Your task to perform on an android device: Open ESPN.com Image 0: 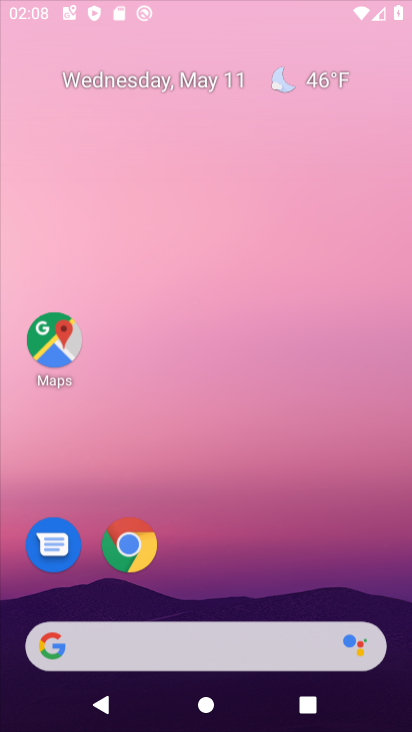
Step 0: click (312, 41)
Your task to perform on an android device: Open ESPN.com Image 1: 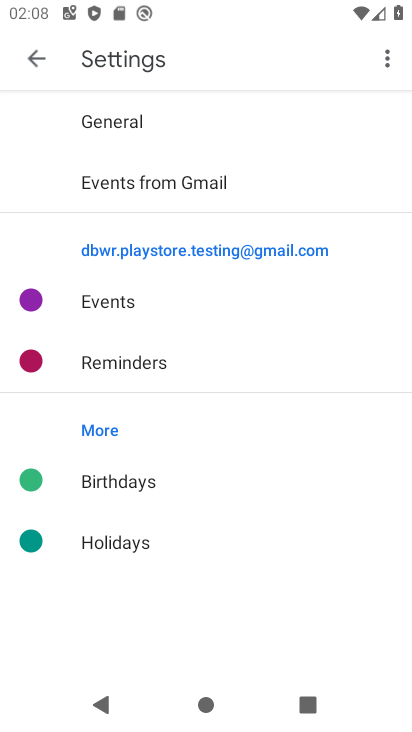
Step 1: press home button
Your task to perform on an android device: Open ESPN.com Image 2: 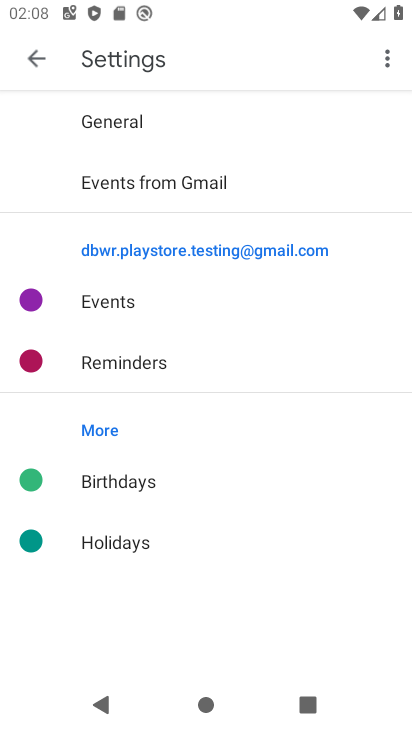
Step 2: drag from (279, 583) to (359, 66)
Your task to perform on an android device: Open ESPN.com Image 3: 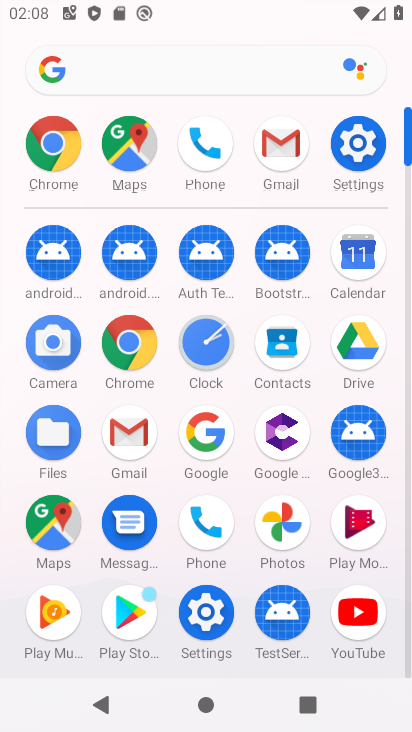
Step 3: click (361, 185)
Your task to perform on an android device: Open ESPN.com Image 4: 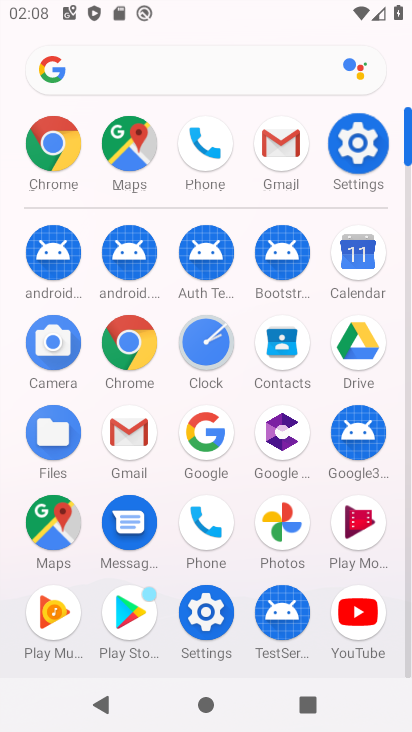
Step 4: click (363, 153)
Your task to perform on an android device: Open ESPN.com Image 5: 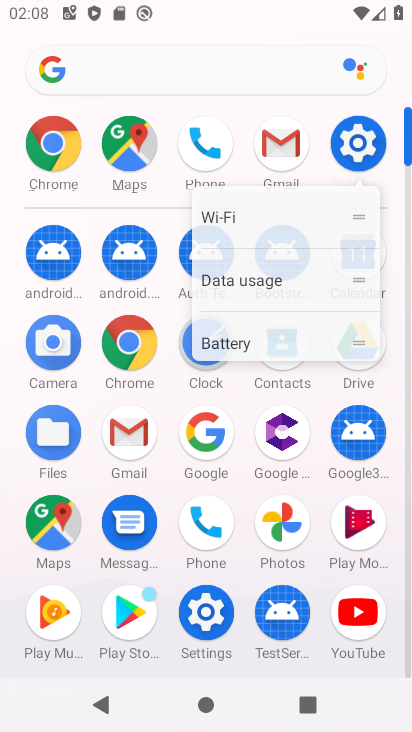
Step 5: click (363, 153)
Your task to perform on an android device: Open ESPN.com Image 6: 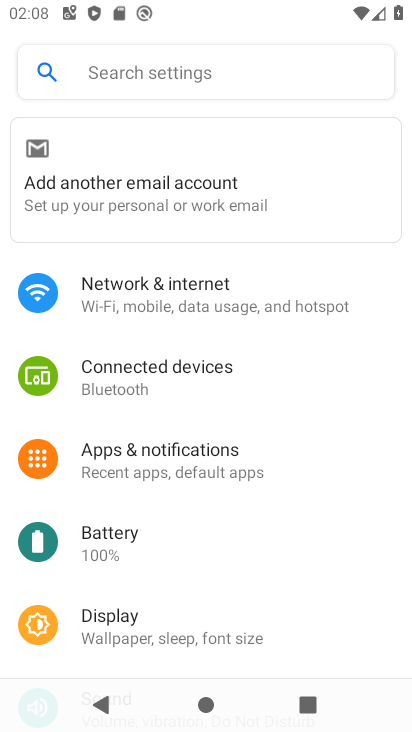
Step 6: drag from (205, 562) to (358, 130)
Your task to perform on an android device: Open ESPN.com Image 7: 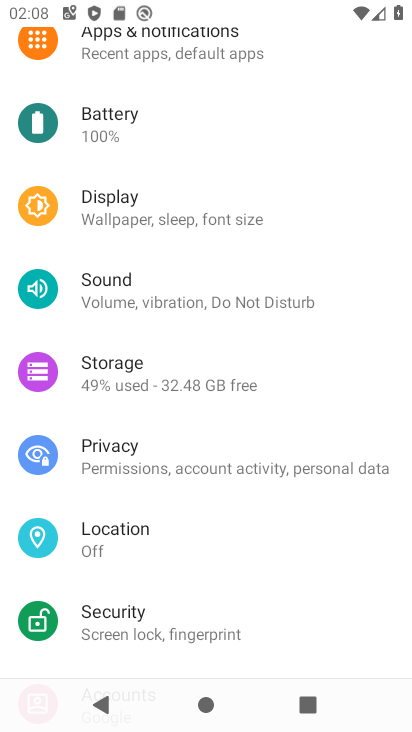
Step 7: drag from (205, 540) to (316, 121)
Your task to perform on an android device: Open ESPN.com Image 8: 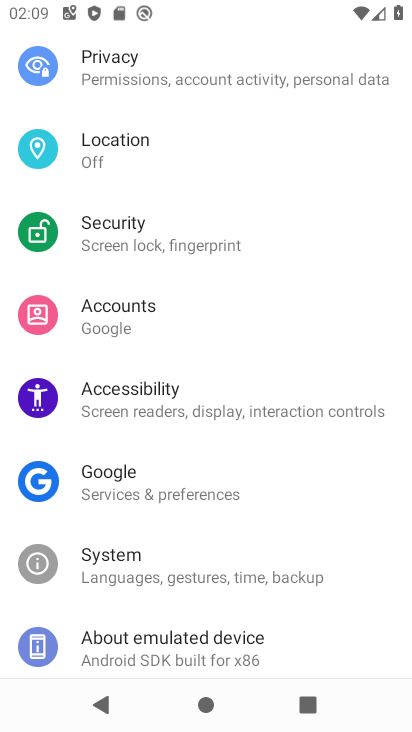
Step 8: drag from (275, 140) to (283, 433)
Your task to perform on an android device: Open ESPN.com Image 9: 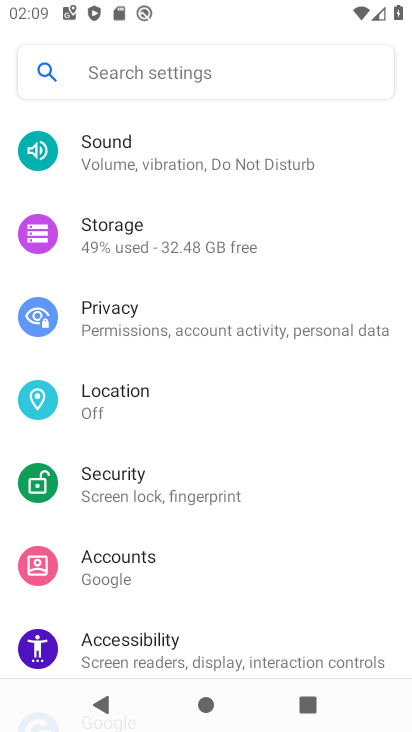
Step 9: click (86, 72)
Your task to perform on an android device: Open ESPN.com Image 10: 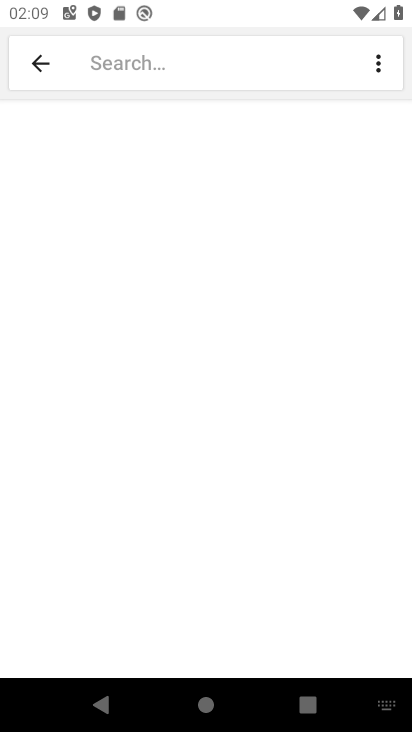
Step 10: press back button
Your task to perform on an android device: Open ESPN.com Image 11: 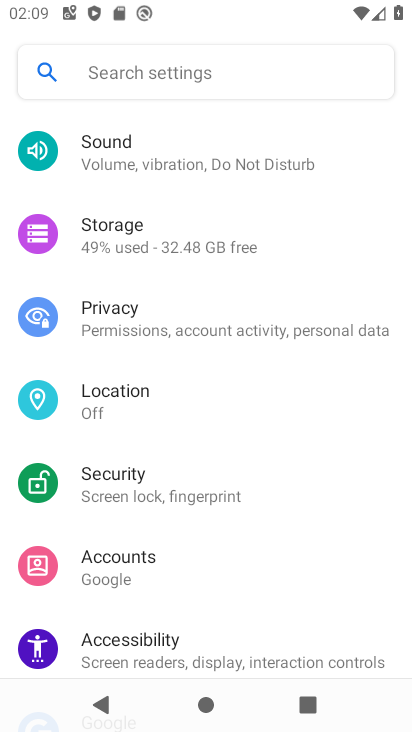
Step 11: press back button
Your task to perform on an android device: Open ESPN.com Image 12: 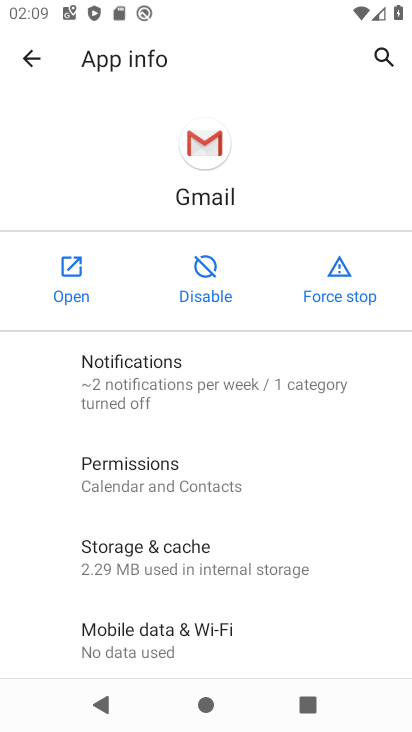
Step 12: press home button
Your task to perform on an android device: Open ESPN.com Image 13: 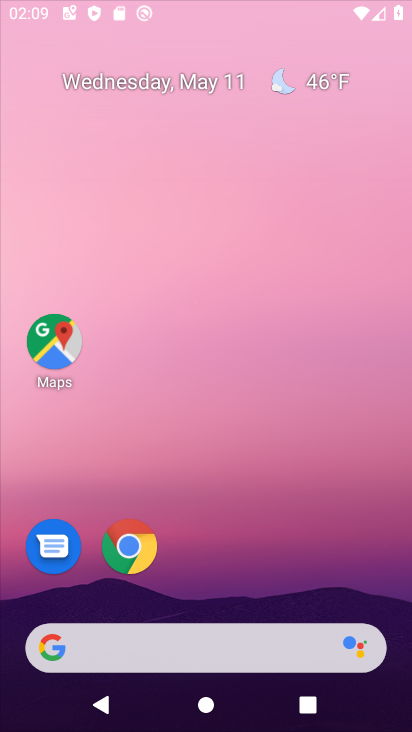
Step 13: drag from (256, 665) to (324, 225)
Your task to perform on an android device: Open ESPN.com Image 14: 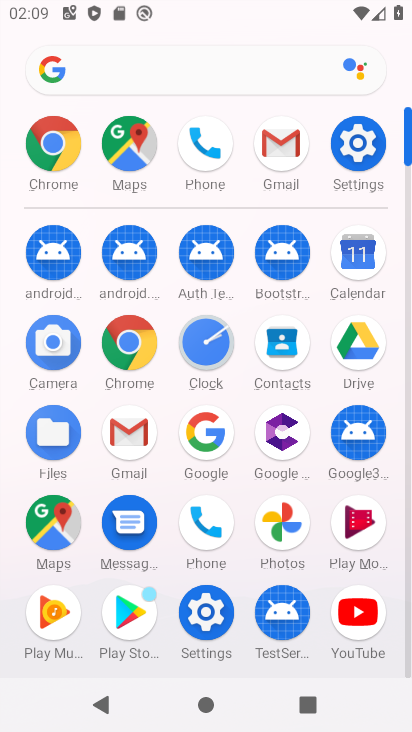
Step 14: click (138, 62)
Your task to perform on an android device: Open ESPN.com Image 15: 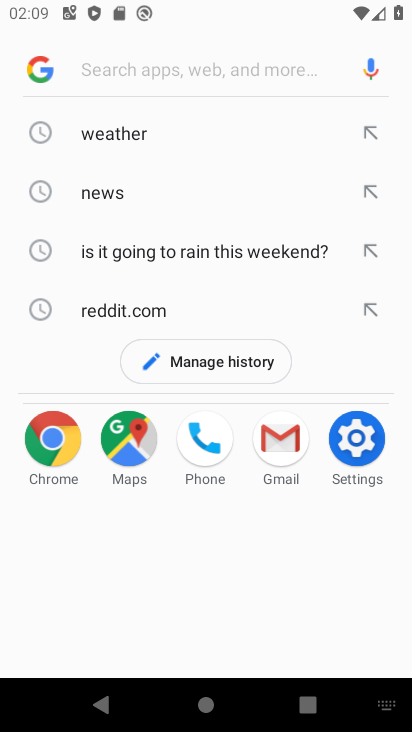
Step 15: type "espn.com"
Your task to perform on an android device: Open ESPN.com Image 16: 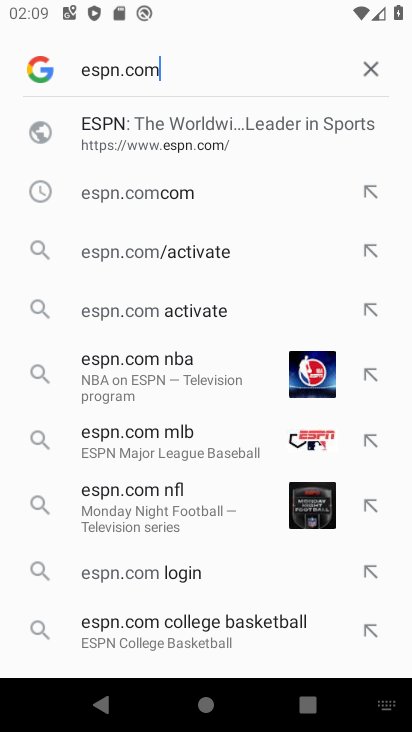
Step 16: click (132, 145)
Your task to perform on an android device: Open ESPN.com Image 17: 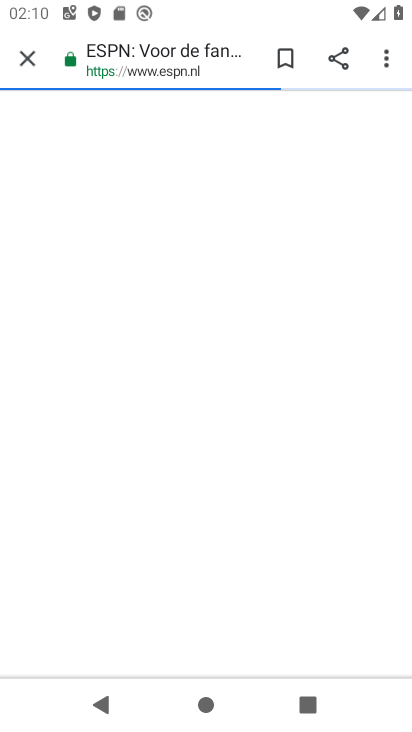
Step 17: task complete